Your task to perform on an android device: Go to sound settings Image 0: 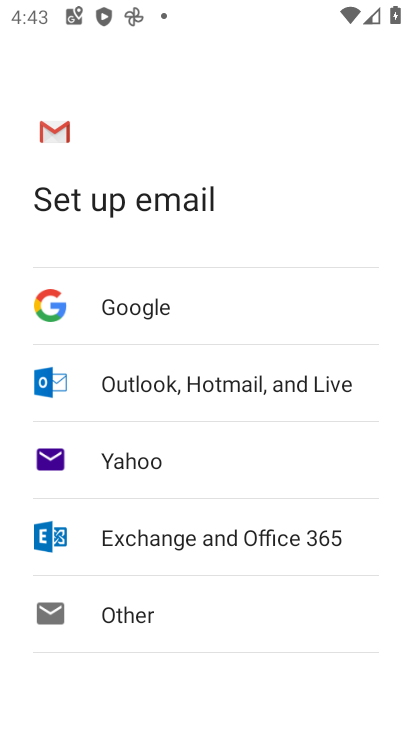
Step 0: press home button
Your task to perform on an android device: Go to sound settings Image 1: 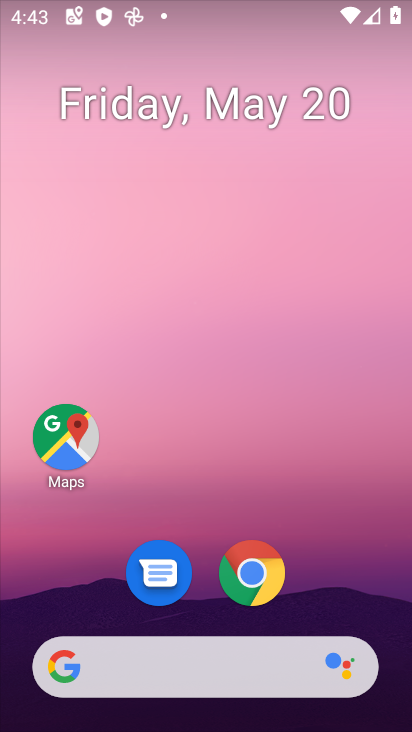
Step 1: drag from (388, 625) to (336, 89)
Your task to perform on an android device: Go to sound settings Image 2: 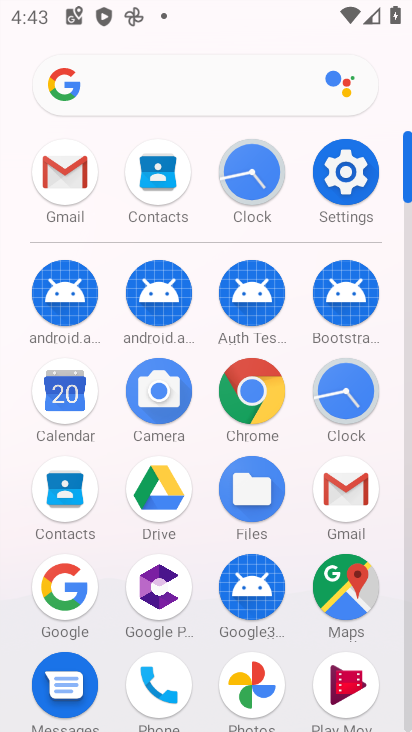
Step 2: click (409, 694)
Your task to perform on an android device: Go to sound settings Image 3: 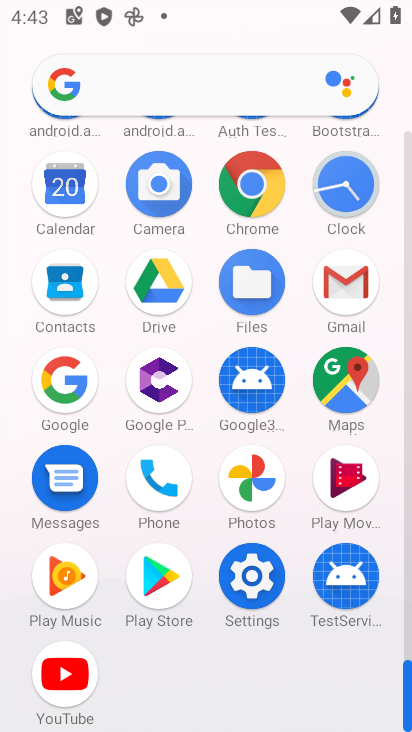
Step 3: click (252, 579)
Your task to perform on an android device: Go to sound settings Image 4: 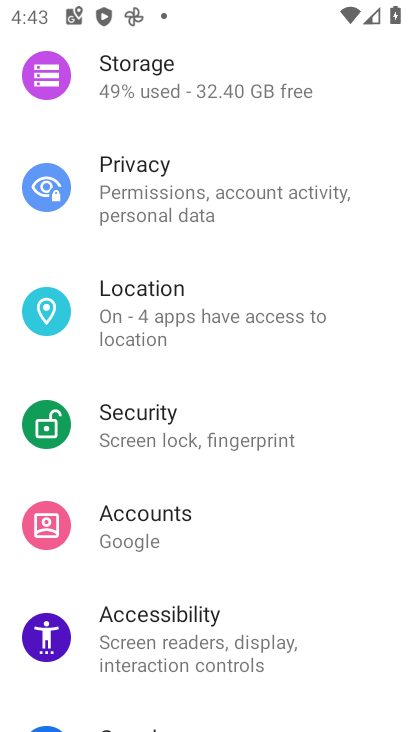
Step 4: drag from (351, 174) to (285, 510)
Your task to perform on an android device: Go to sound settings Image 5: 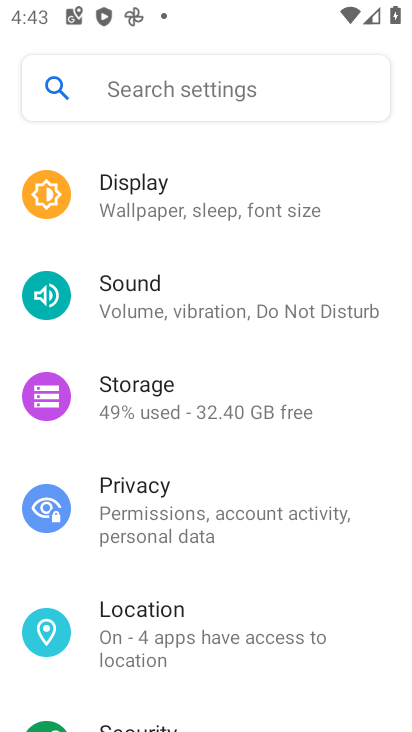
Step 5: click (132, 293)
Your task to perform on an android device: Go to sound settings Image 6: 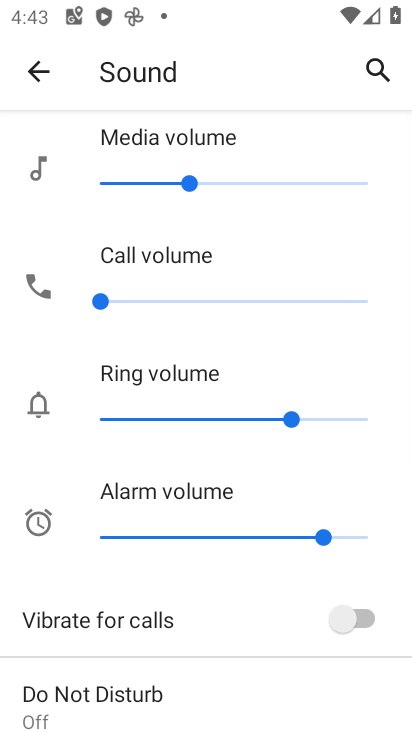
Step 6: drag from (277, 663) to (288, 239)
Your task to perform on an android device: Go to sound settings Image 7: 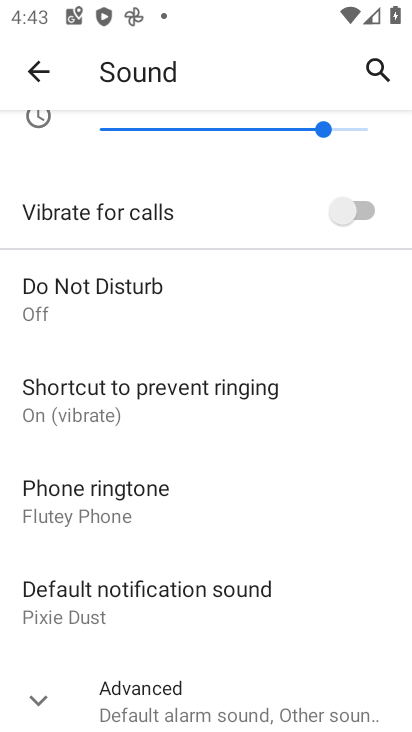
Step 7: drag from (308, 597) to (299, 241)
Your task to perform on an android device: Go to sound settings Image 8: 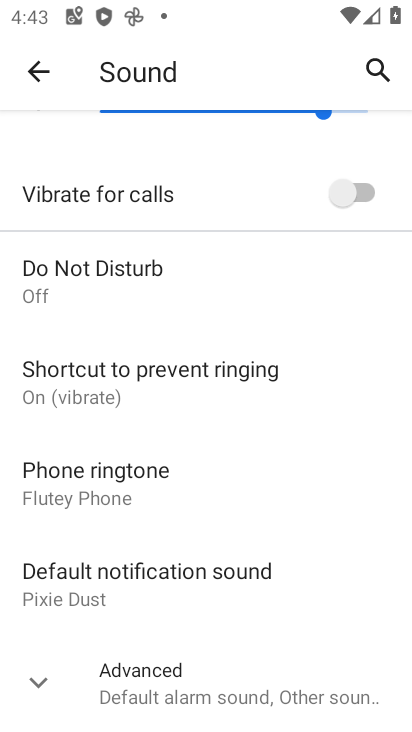
Step 8: click (39, 682)
Your task to perform on an android device: Go to sound settings Image 9: 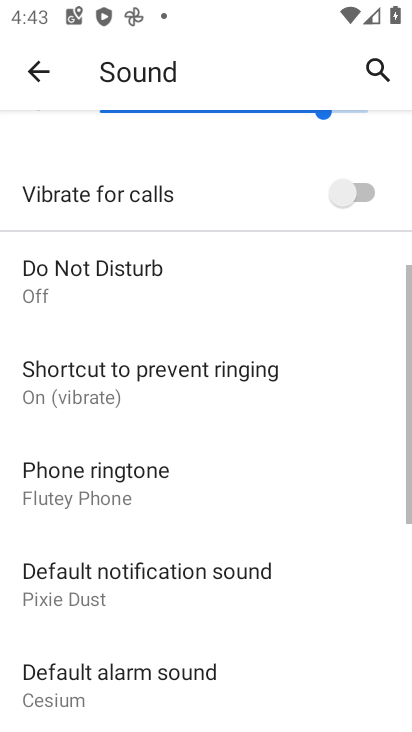
Step 9: task complete